Your task to perform on an android device: Search for sushi restaurants on Maps Image 0: 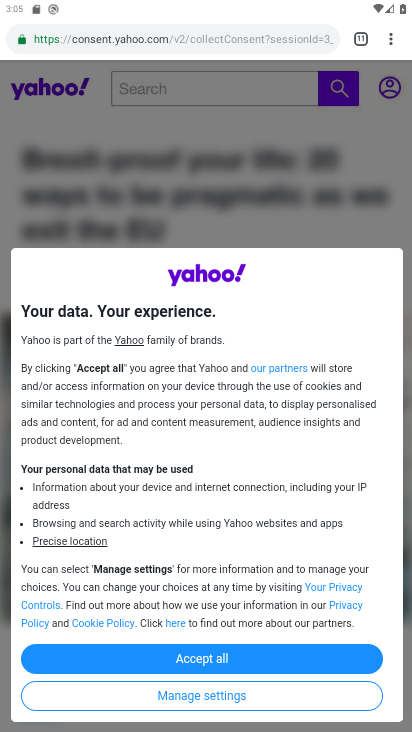
Step 0: press home button
Your task to perform on an android device: Search for sushi restaurants on Maps Image 1: 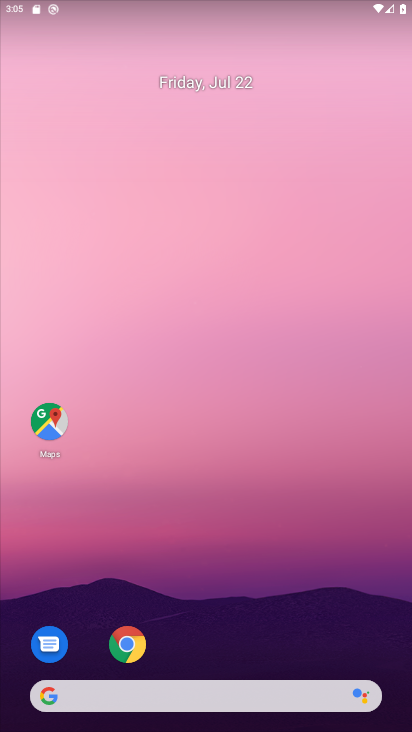
Step 1: click (38, 421)
Your task to perform on an android device: Search for sushi restaurants on Maps Image 2: 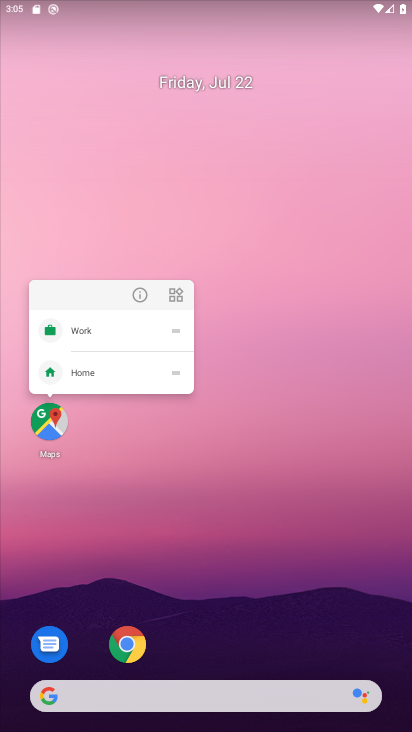
Step 2: click (38, 421)
Your task to perform on an android device: Search for sushi restaurants on Maps Image 3: 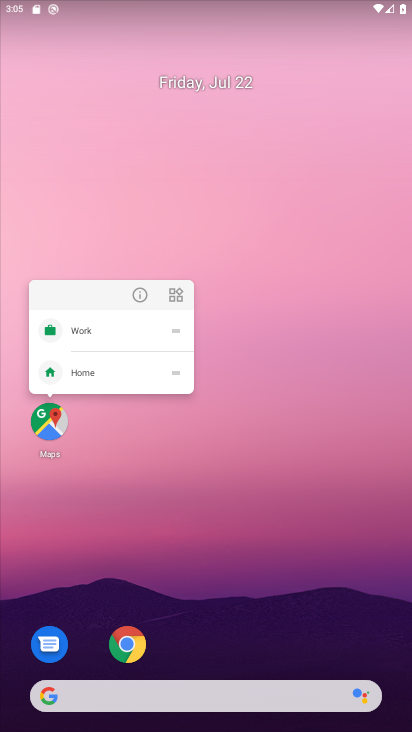
Step 3: click (58, 429)
Your task to perform on an android device: Search for sushi restaurants on Maps Image 4: 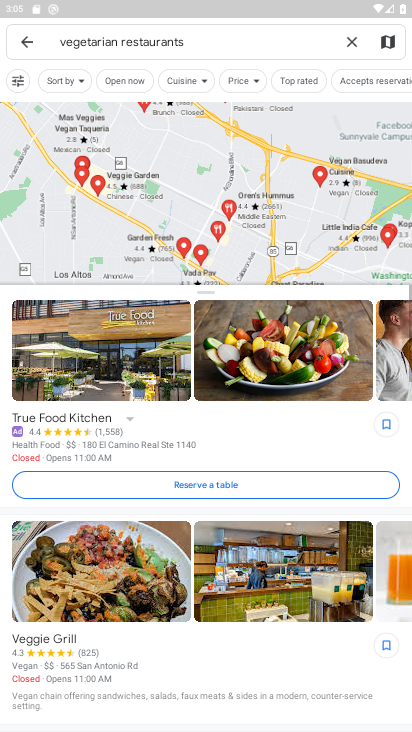
Step 4: click (348, 45)
Your task to perform on an android device: Search for sushi restaurants on Maps Image 5: 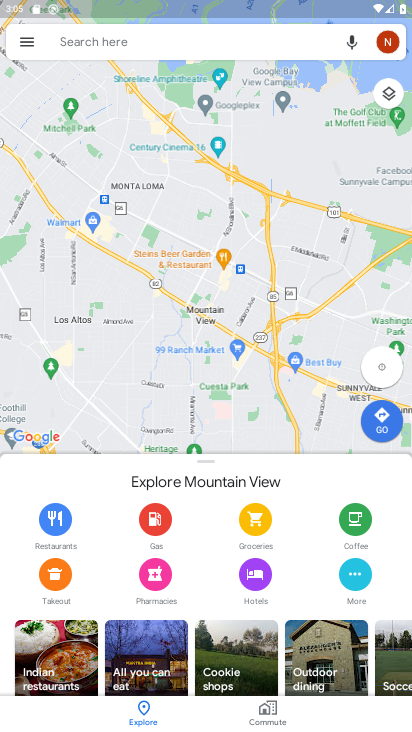
Step 5: click (126, 40)
Your task to perform on an android device: Search for sushi restaurants on Maps Image 6: 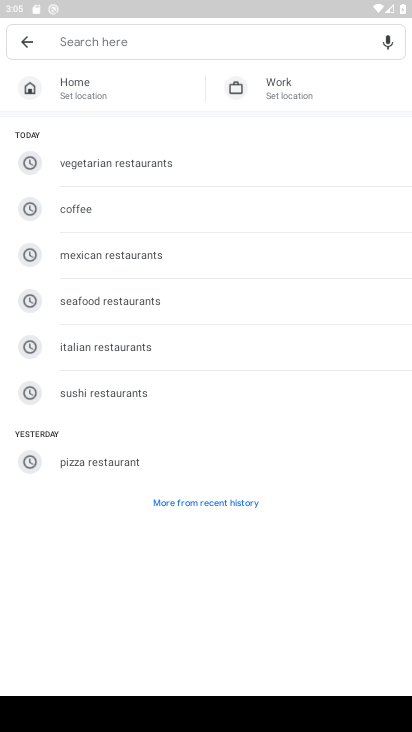
Step 6: click (98, 389)
Your task to perform on an android device: Search for sushi restaurants on Maps Image 7: 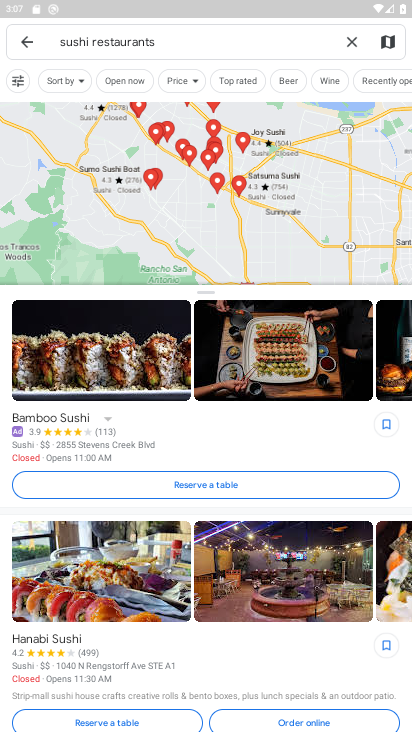
Step 7: task complete